Your task to perform on an android device: Open Youtube and go to the subscriptions tab Image 0: 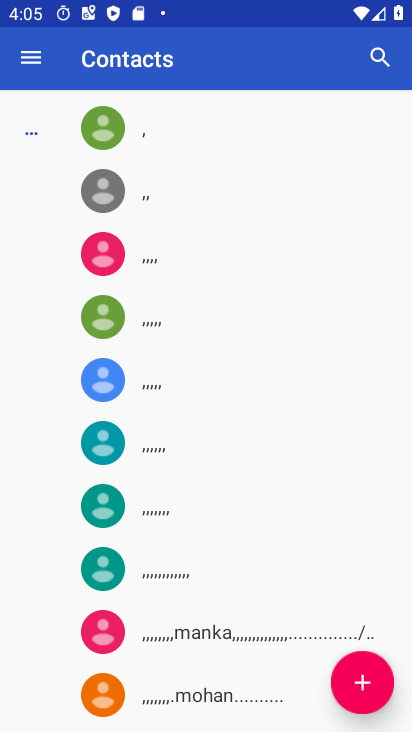
Step 0: press back button
Your task to perform on an android device: Open Youtube and go to the subscriptions tab Image 1: 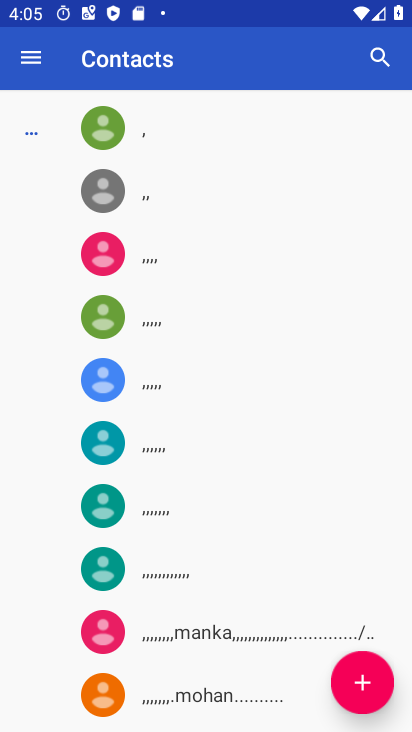
Step 1: press back button
Your task to perform on an android device: Open Youtube and go to the subscriptions tab Image 2: 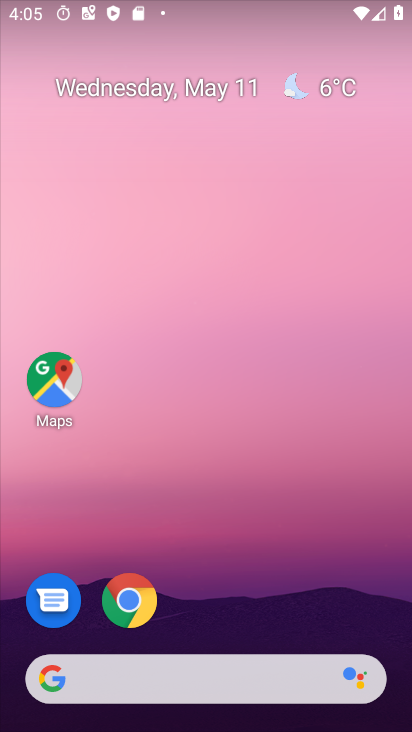
Step 2: drag from (328, 647) to (242, 135)
Your task to perform on an android device: Open Youtube and go to the subscriptions tab Image 3: 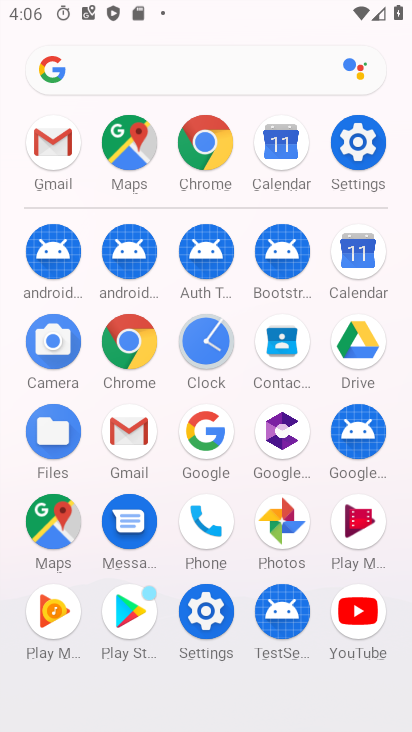
Step 3: click (364, 610)
Your task to perform on an android device: Open Youtube and go to the subscriptions tab Image 4: 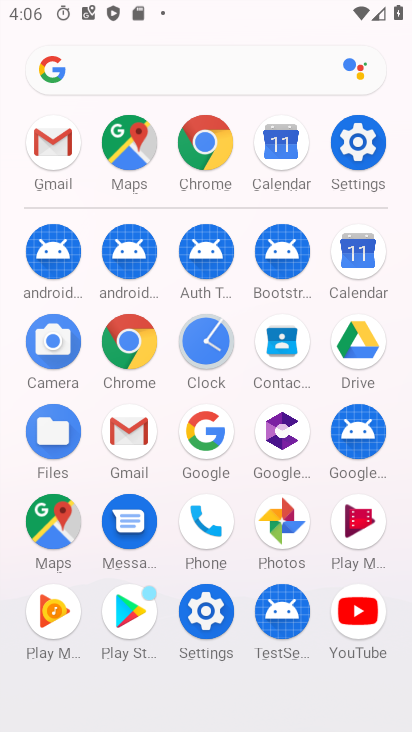
Step 4: click (364, 610)
Your task to perform on an android device: Open Youtube and go to the subscriptions tab Image 5: 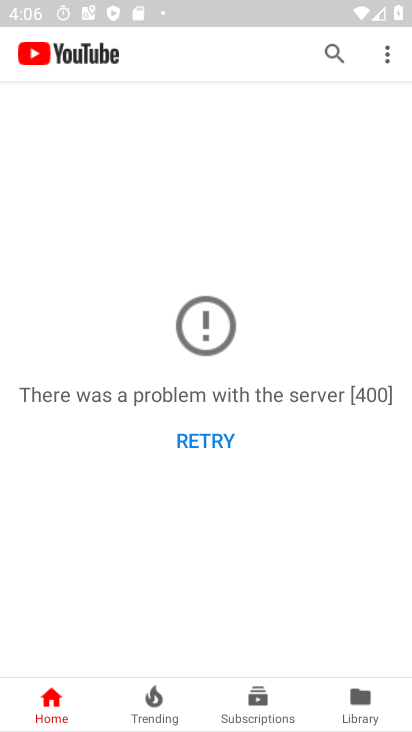
Step 5: click (242, 687)
Your task to perform on an android device: Open Youtube and go to the subscriptions tab Image 6: 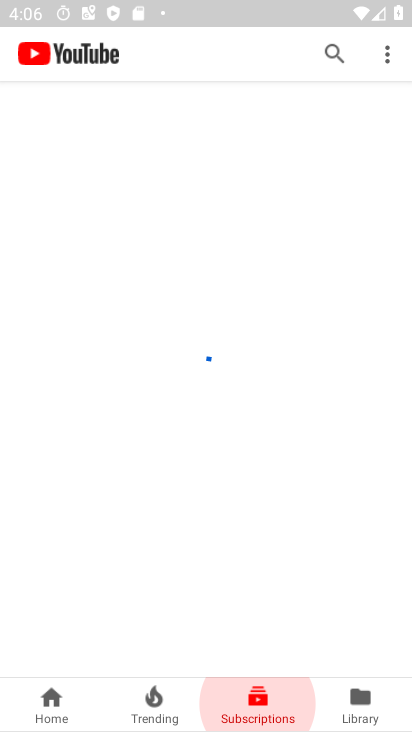
Step 6: click (243, 686)
Your task to perform on an android device: Open Youtube and go to the subscriptions tab Image 7: 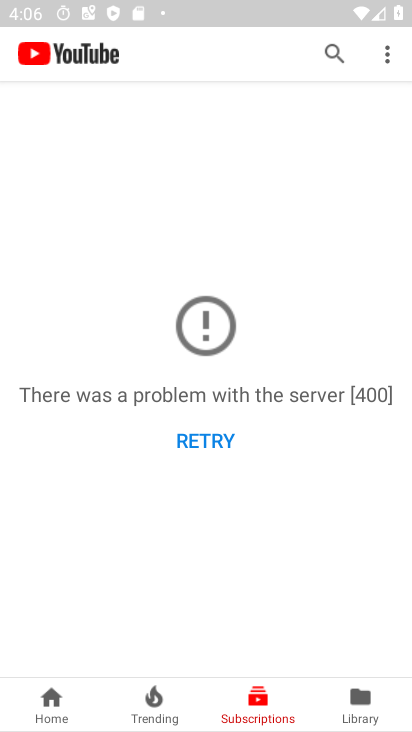
Step 7: click (243, 686)
Your task to perform on an android device: Open Youtube and go to the subscriptions tab Image 8: 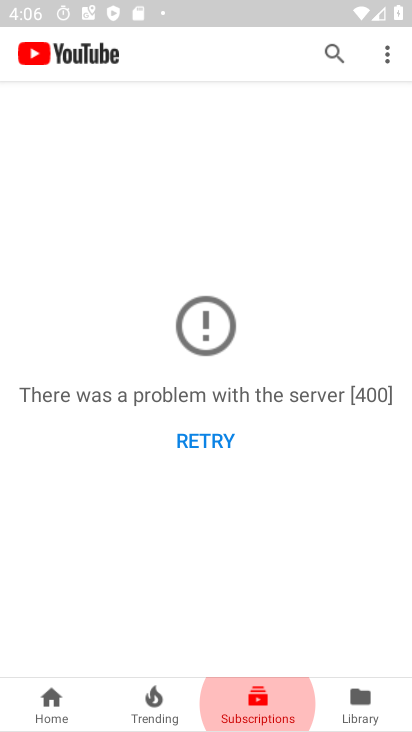
Step 8: click (245, 685)
Your task to perform on an android device: Open Youtube and go to the subscriptions tab Image 9: 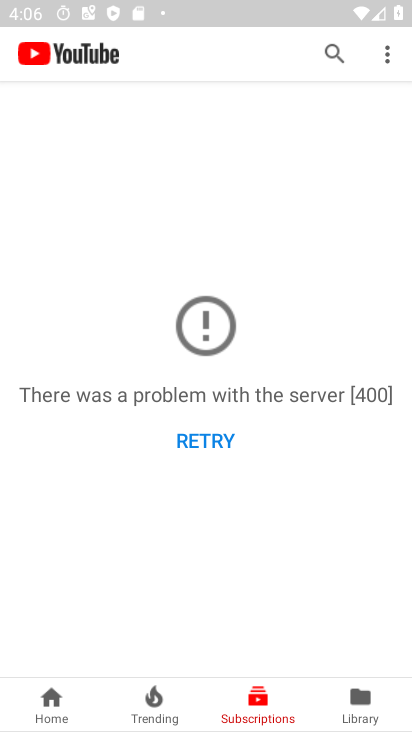
Step 9: task complete